Your task to perform on an android device: star an email in the gmail app Image 0: 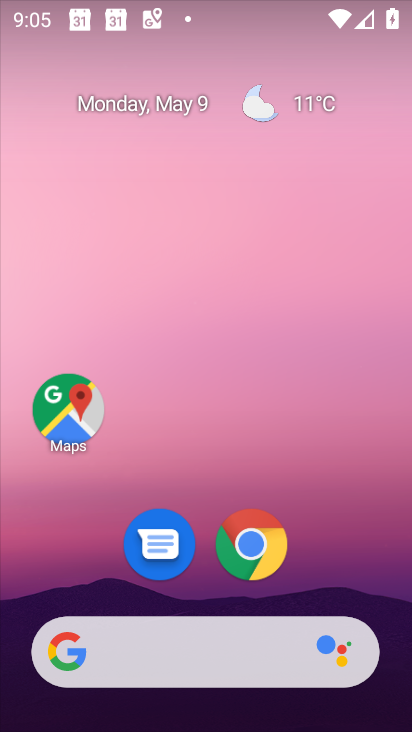
Step 0: drag from (409, 653) to (312, 232)
Your task to perform on an android device: star an email in the gmail app Image 1: 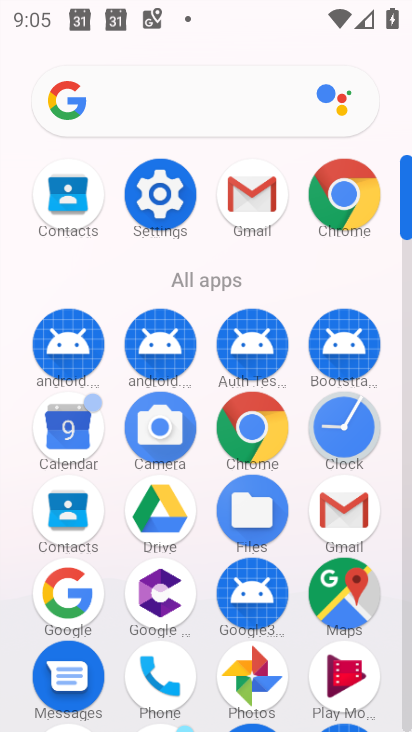
Step 1: click (354, 514)
Your task to perform on an android device: star an email in the gmail app Image 2: 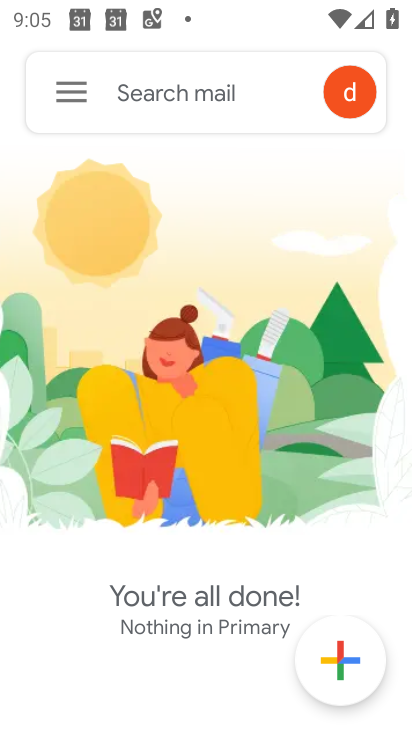
Step 2: click (56, 85)
Your task to perform on an android device: star an email in the gmail app Image 3: 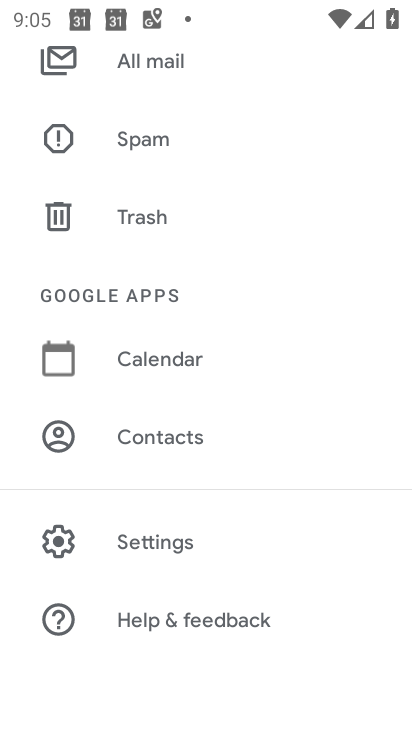
Step 3: drag from (272, 142) to (311, 573)
Your task to perform on an android device: star an email in the gmail app Image 4: 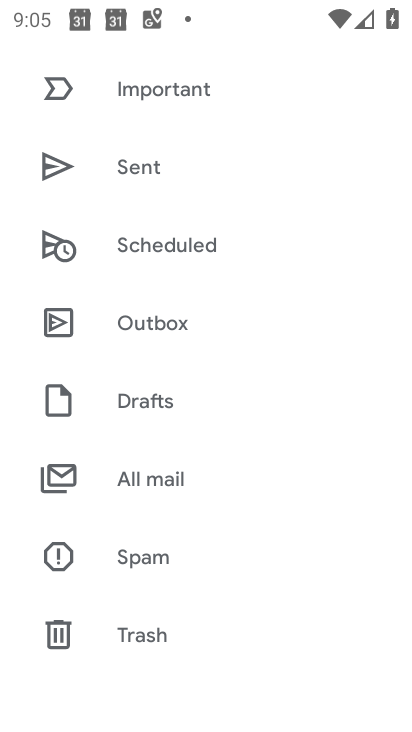
Step 4: drag from (287, 131) to (382, 562)
Your task to perform on an android device: star an email in the gmail app Image 5: 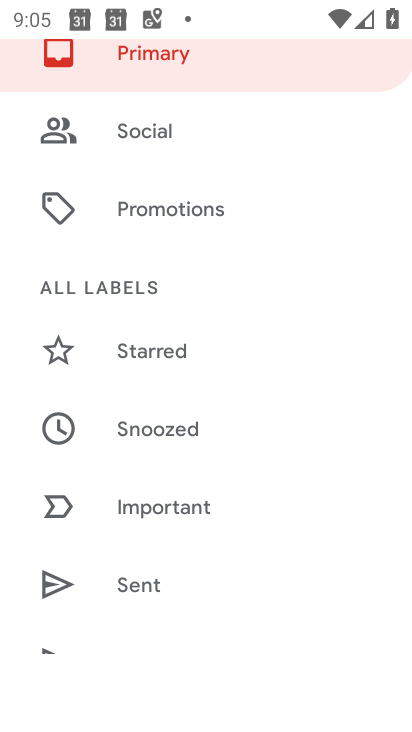
Step 5: drag from (345, 295) to (372, 639)
Your task to perform on an android device: star an email in the gmail app Image 6: 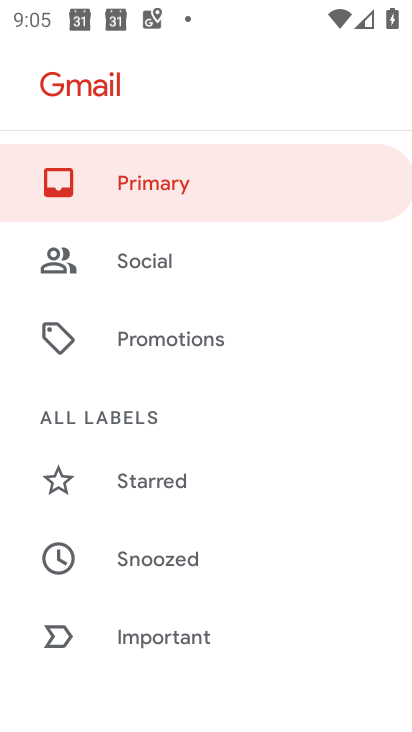
Step 6: click (137, 162)
Your task to perform on an android device: star an email in the gmail app Image 7: 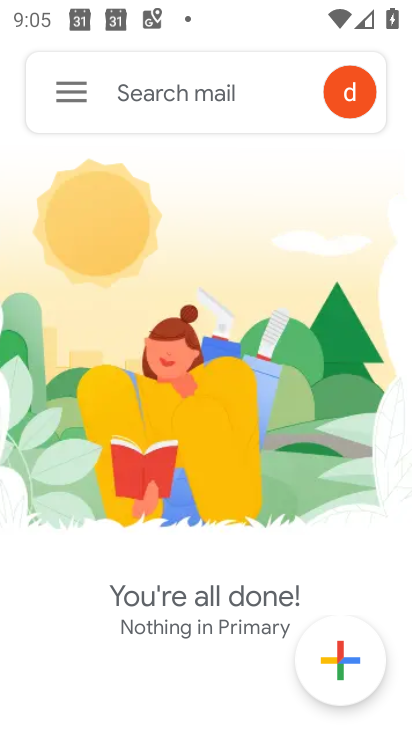
Step 7: task complete